Your task to perform on an android device: turn off wifi Image 0: 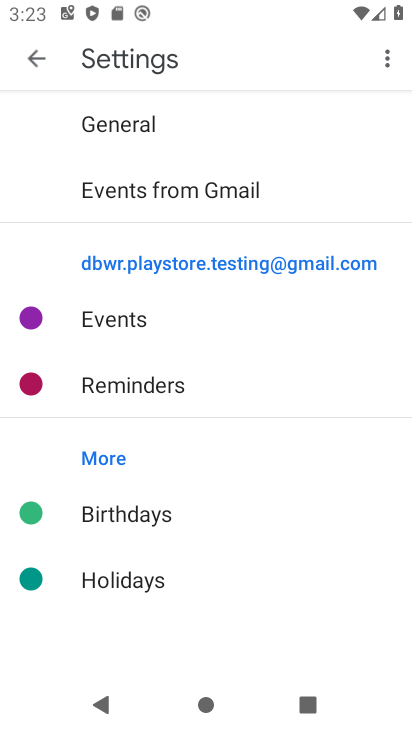
Step 0: drag from (139, 17) to (300, 581)
Your task to perform on an android device: turn off wifi Image 1: 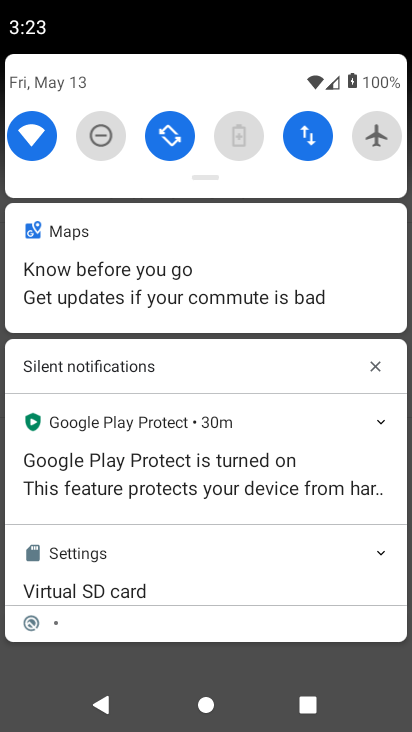
Step 1: click (41, 148)
Your task to perform on an android device: turn off wifi Image 2: 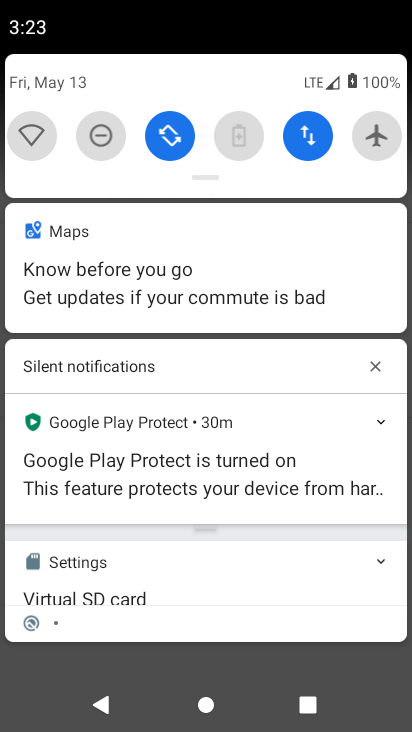
Step 2: task complete